Your task to perform on an android device: What's the weather today? Image 0: 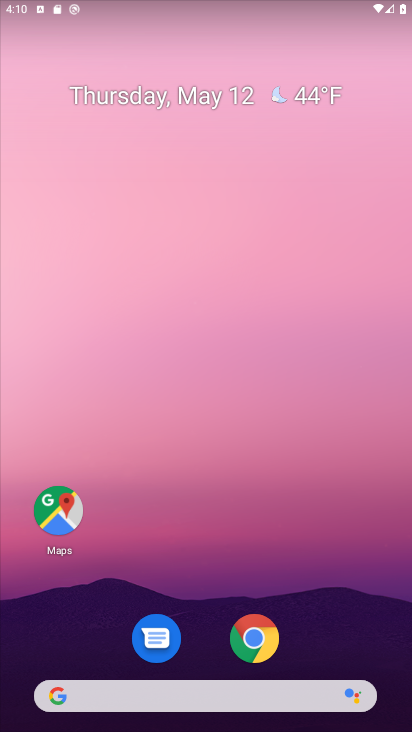
Step 0: click (313, 88)
Your task to perform on an android device: What's the weather today? Image 1: 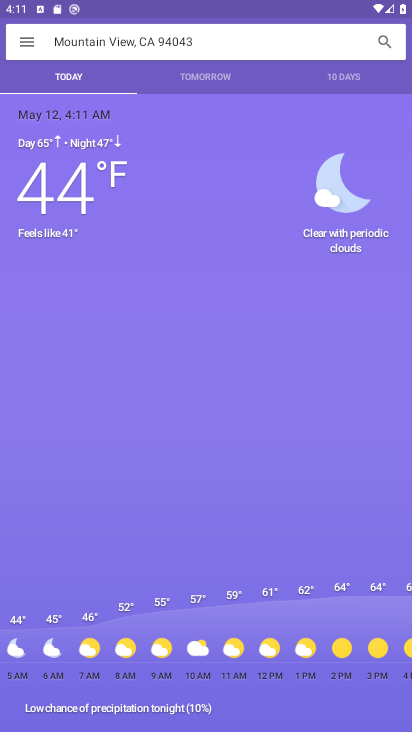
Step 1: task complete